Your task to perform on an android device: Go to Amazon Image 0: 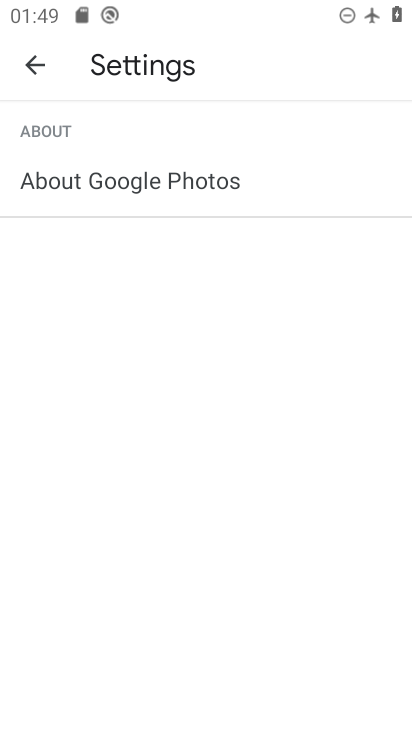
Step 0: press home button
Your task to perform on an android device: Go to Amazon Image 1: 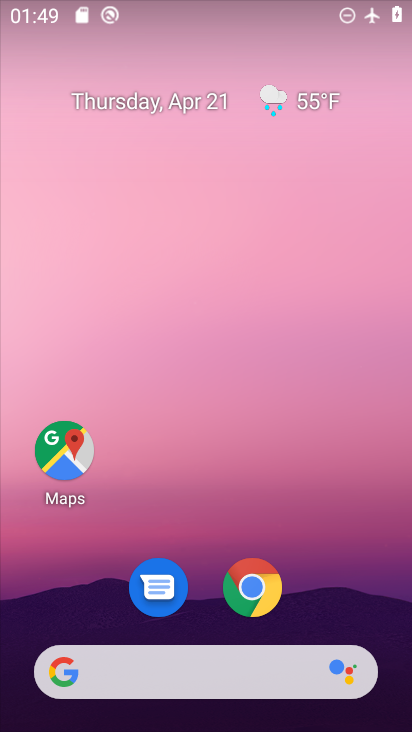
Step 1: click (254, 581)
Your task to perform on an android device: Go to Amazon Image 2: 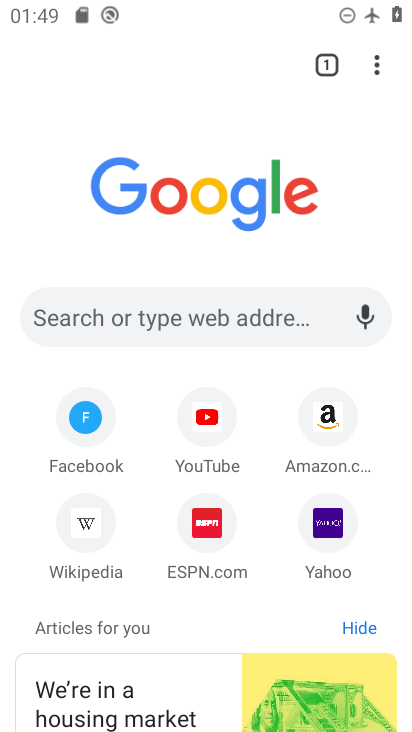
Step 2: click (329, 415)
Your task to perform on an android device: Go to Amazon Image 3: 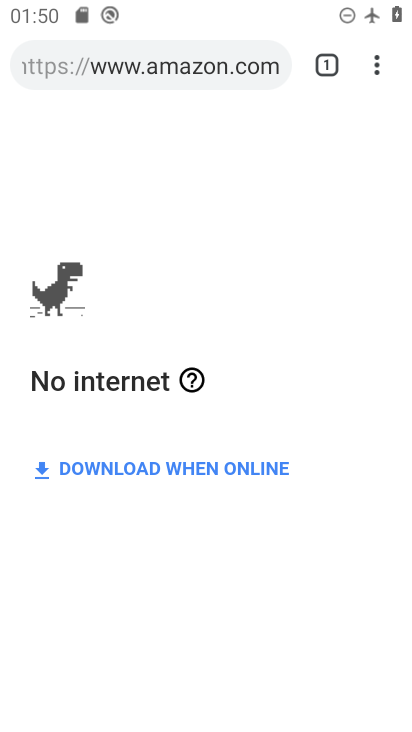
Step 3: task complete